Your task to perform on an android device: turn off picture-in-picture Image 0: 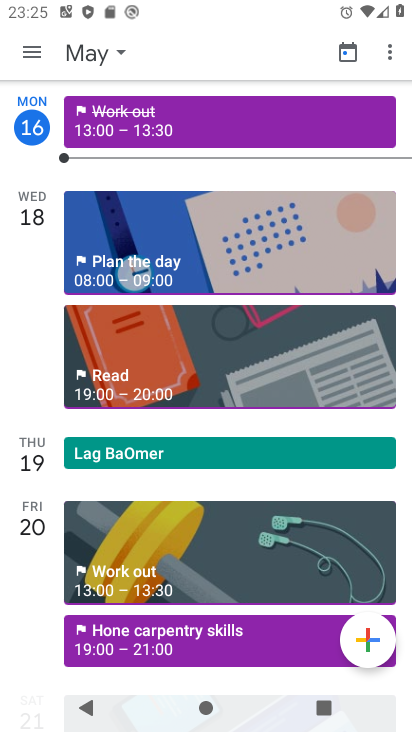
Step 0: press home button
Your task to perform on an android device: turn off picture-in-picture Image 1: 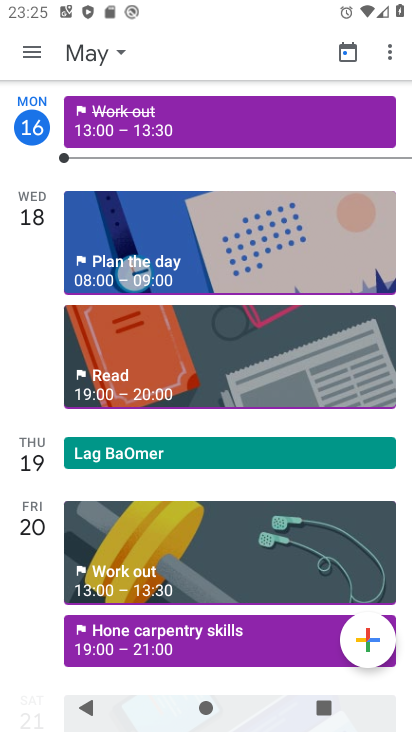
Step 1: press home button
Your task to perform on an android device: turn off picture-in-picture Image 2: 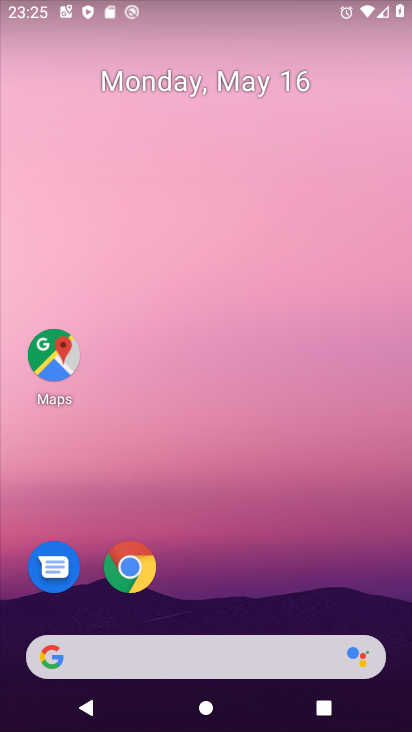
Step 2: drag from (263, 501) to (173, 107)
Your task to perform on an android device: turn off picture-in-picture Image 3: 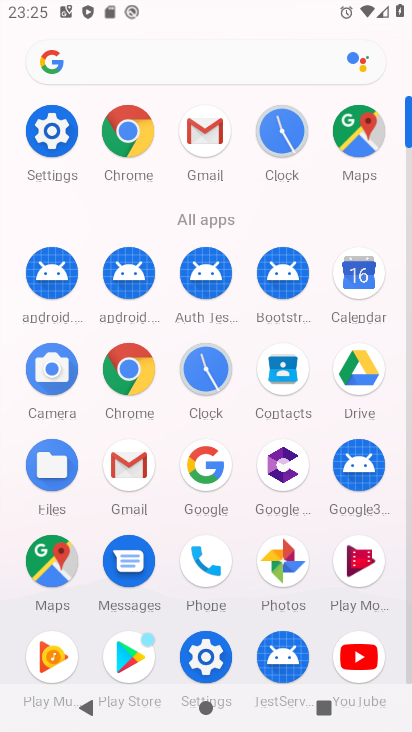
Step 3: click (46, 138)
Your task to perform on an android device: turn off picture-in-picture Image 4: 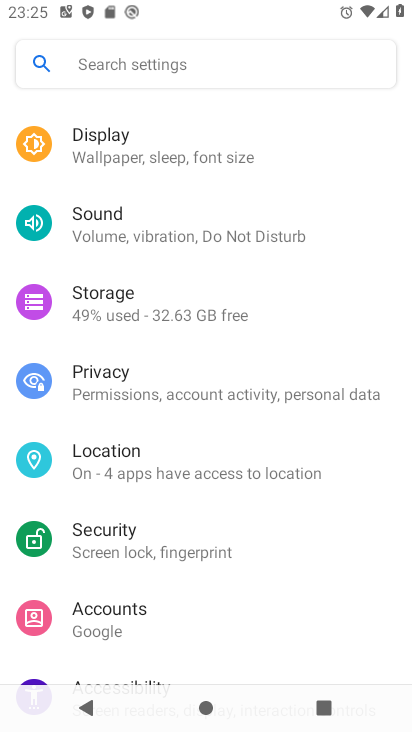
Step 4: drag from (171, 200) to (204, 506)
Your task to perform on an android device: turn off picture-in-picture Image 5: 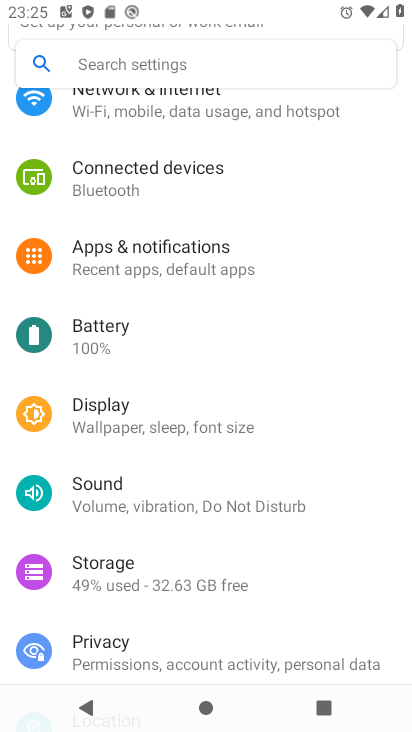
Step 5: click (191, 246)
Your task to perform on an android device: turn off picture-in-picture Image 6: 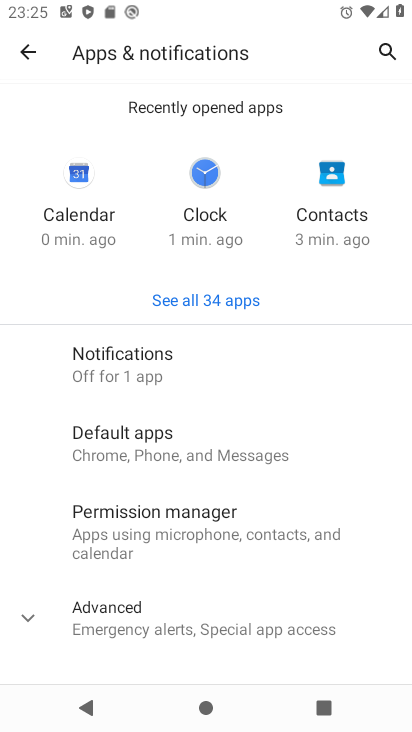
Step 6: click (128, 354)
Your task to perform on an android device: turn off picture-in-picture Image 7: 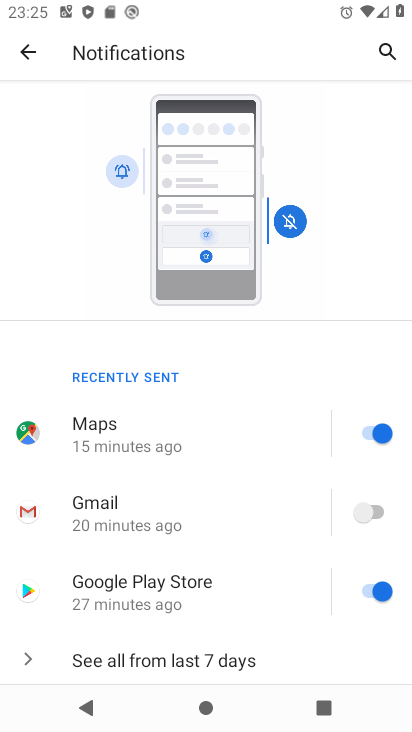
Step 7: click (31, 67)
Your task to perform on an android device: turn off picture-in-picture Image 8: 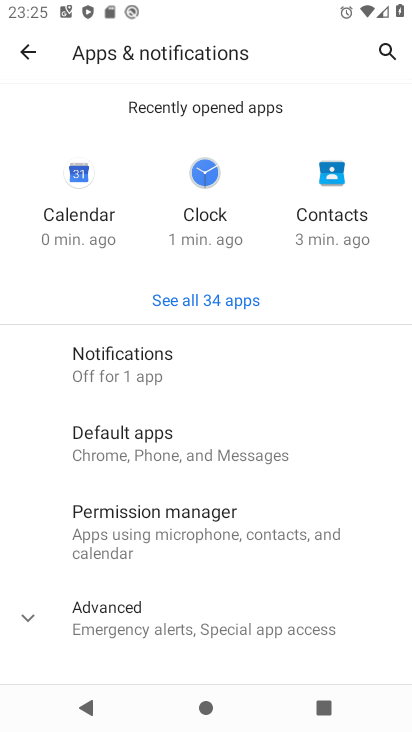
Step 8: click (47, 618)
Your task to perform on an android device: turn off picture-in-picture Image 9: 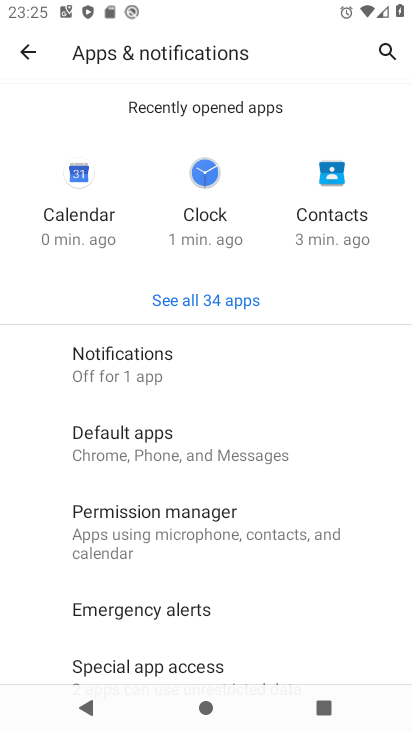
Step 9: drag from (241, 588) to (141, 214)
Your task to perform on an android device: turn off picture-in-picture Image 10: 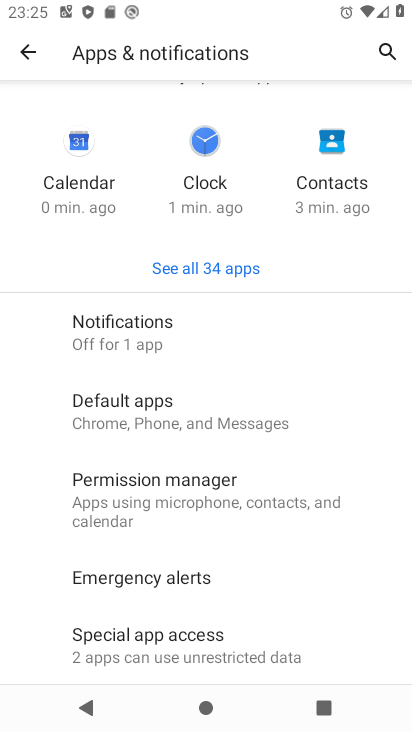
Step 10: click (153, 634)
Your task to perform on an android device: turn off picture-in-picture Image 11: 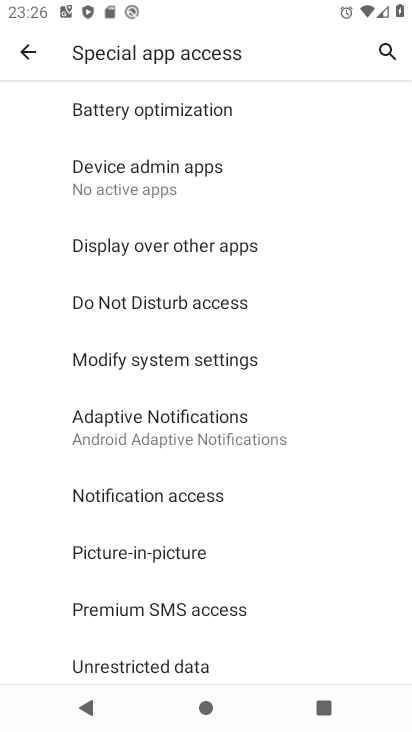
Step 11: click (172, 546)
Your task to perform on an android device: turn off picture-in-picture Image 12: 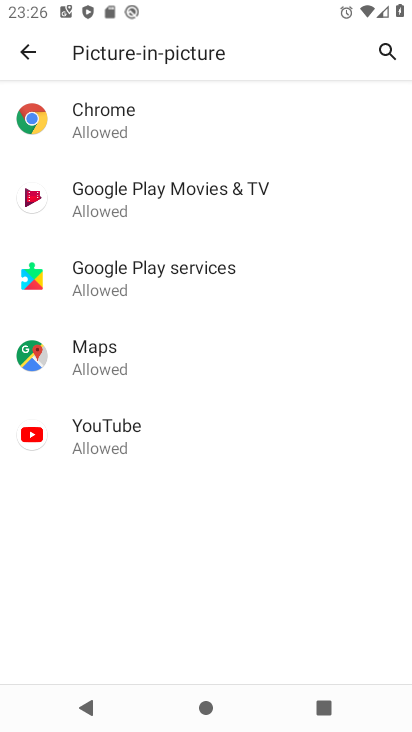
Step 12: click (101, 105)
Your task to perform on an android device: turn off picture-in-picture Image 13: 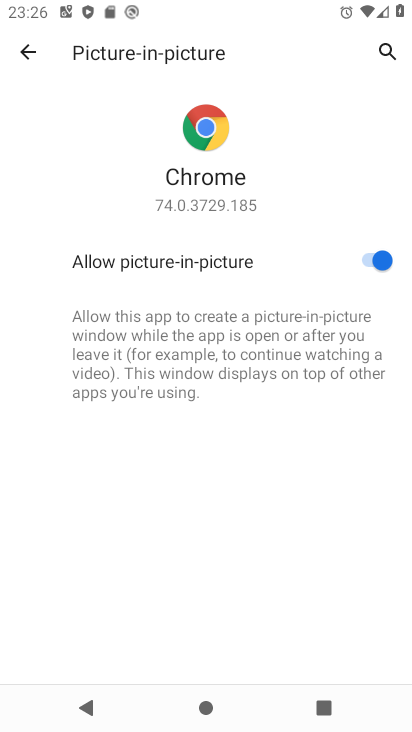
Step 13: click (378, 256)
Your task to perform on an android device: turn off picture-in-picture Image 14: 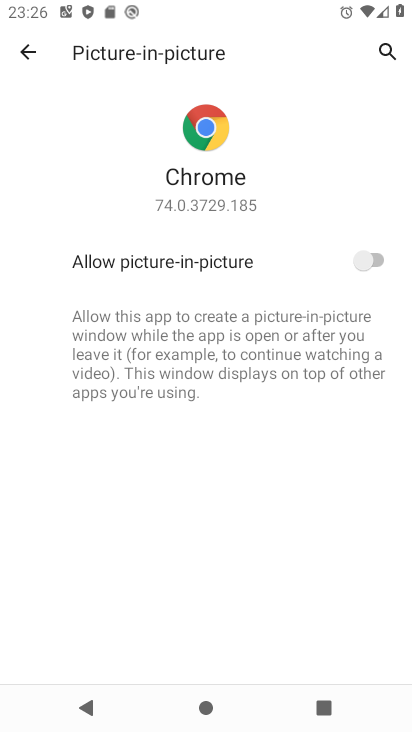
Step 14: click (21, 52)
Your task to perform on an android device: turn off picture-in-picture Image 15: 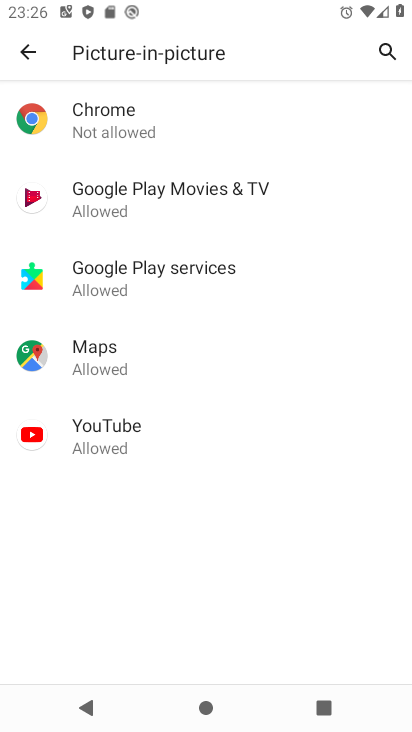
Step 15: click (127, 200)
Your task to perform on an android device: turn off picture-in-picture Image 16: 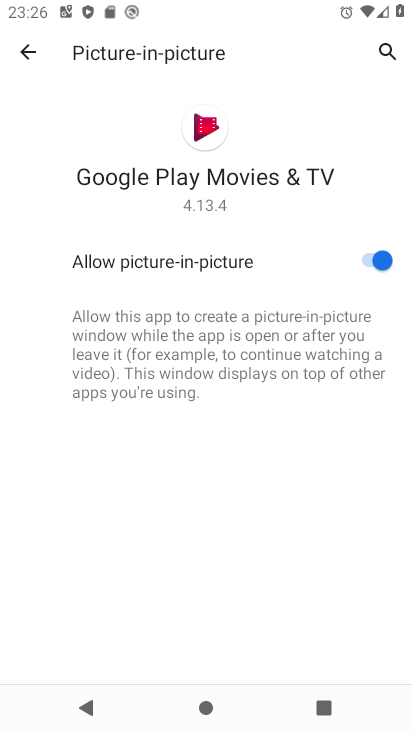
Step 16: click (375, 266)
Your task to perform on an android device: turn off picture-in-picture Image 17: 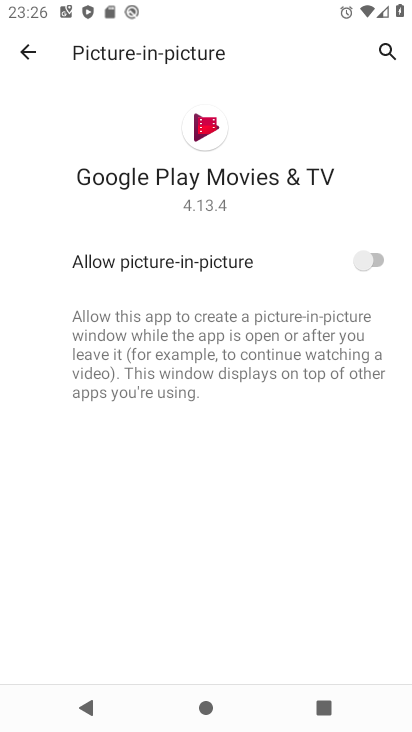
Step 17: click (30, 51)
Your task to perform on an android device: turn off picture-in-picture Image 18: 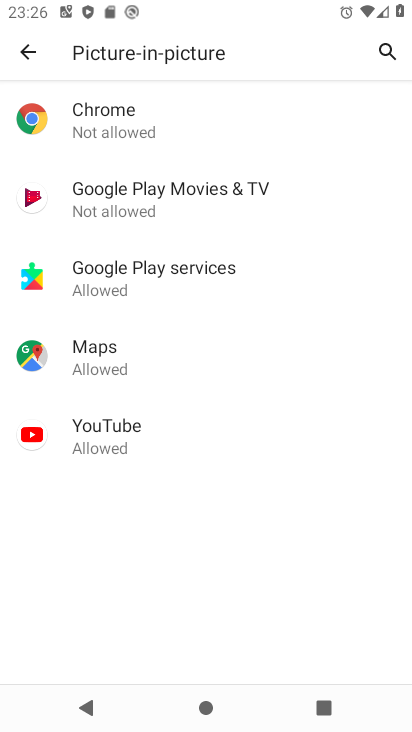
Step 18: click (173, 260)
Your task to perform on an android device: turn off picture-in-picture Image 19: 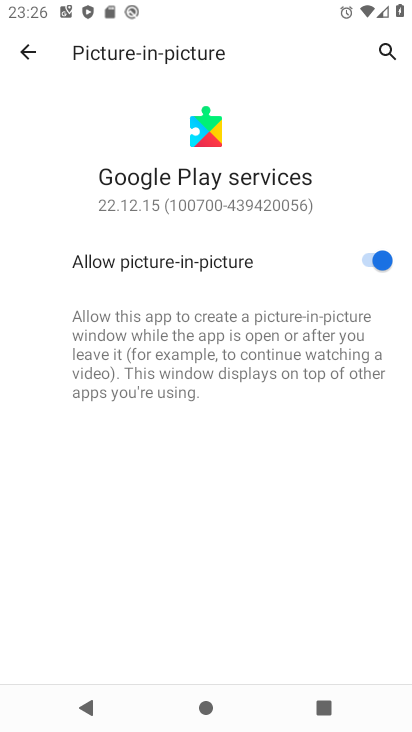
Step 19: click (374, 261)
Your task to perform on an android device: turn off picture-in-picture Image 20: 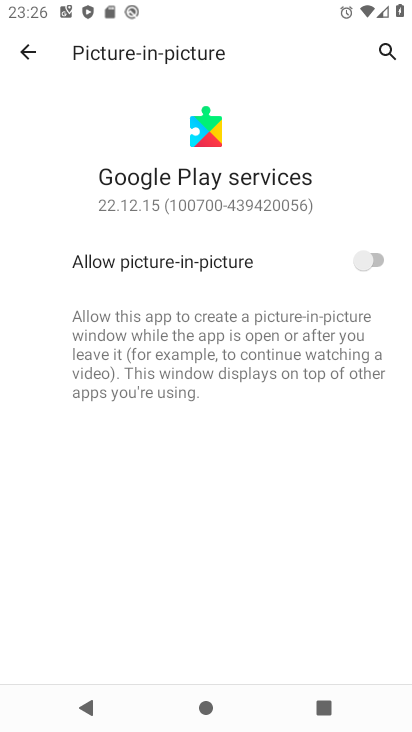
Step 20: click (29, 51)
Your task to perform on an android device: turn off picture-in-picture Image 21: 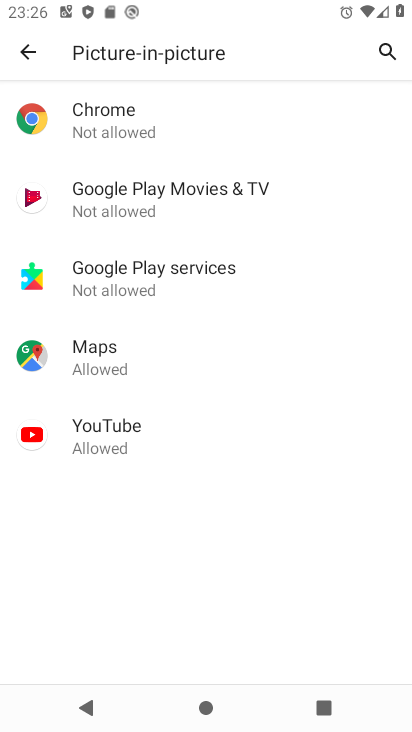
Step 21: click (112, 355)
Your task to perform on an android device: turn off picture-in-picture Image 22: 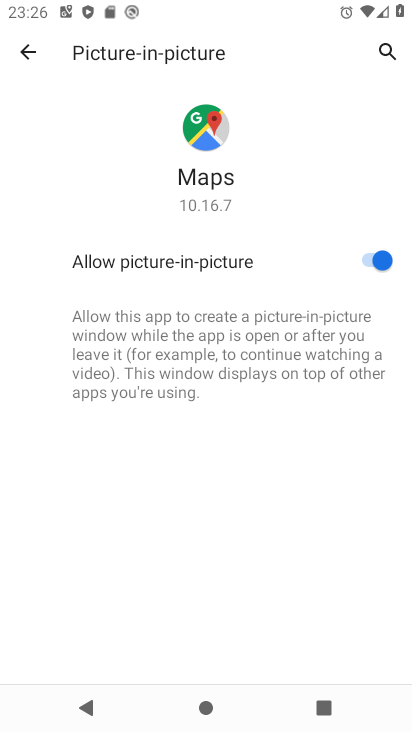
Step 22: click (374, 268)
Your task to perform on an android device: turn off picture-in-picture Image 23: 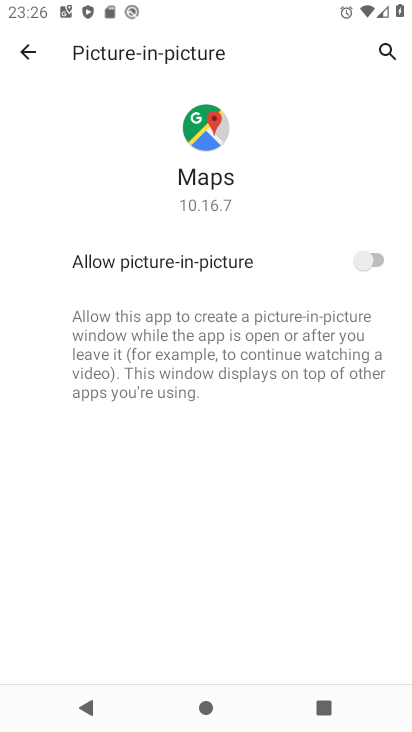
Step 23: click (25, 51)
Your task to perform on an android device: turn off picture-in-picture Image 24: 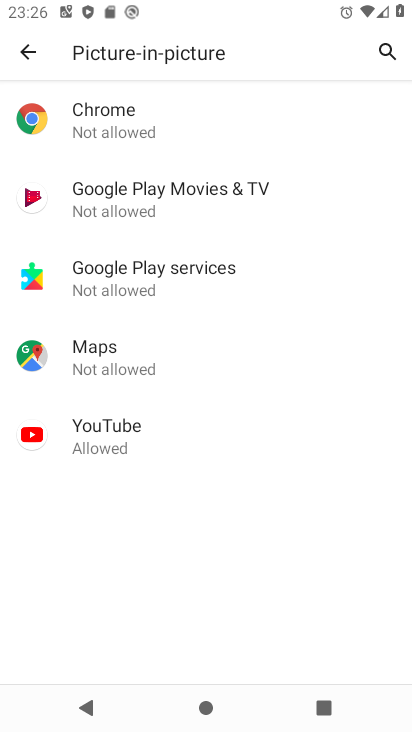
Step 24: click (101, 427)
Your task to perform on an android device: turn off picture-in-picture Image 25: 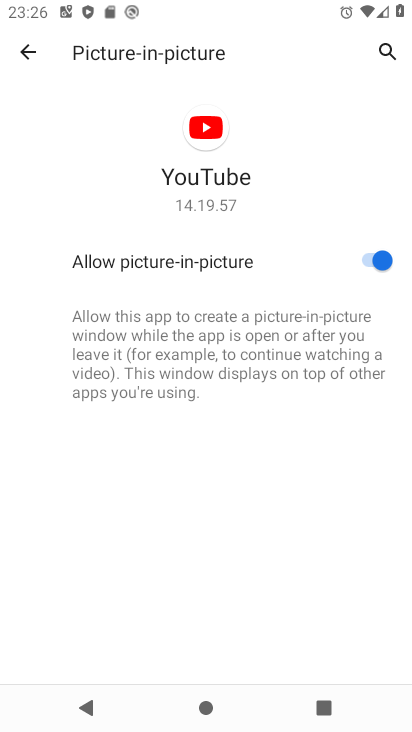
Step 25: click (374, 260)
Your task to perform on an android device: turn off picture-in-picture Image 26: 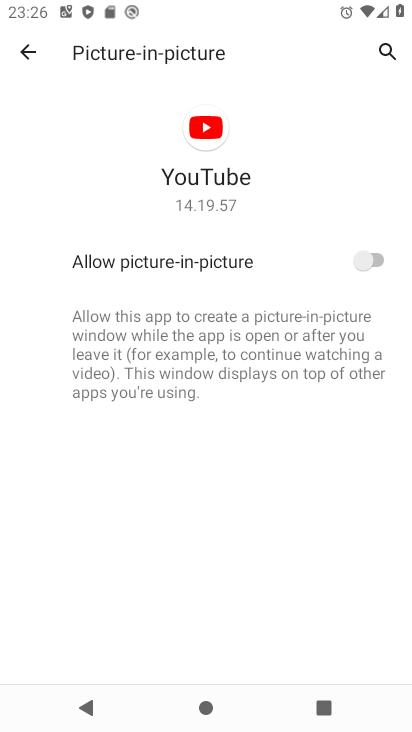
Step 26: task complete